Your task to perform on an android device: change text size in settings app Image 0: 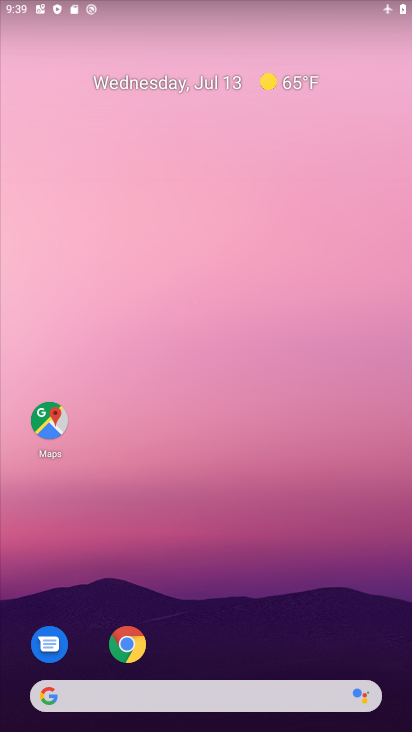
Step 0: drag from (272, 595) to (259, 15)
Your task to perform on an android device: change text size in settings app Image 1: 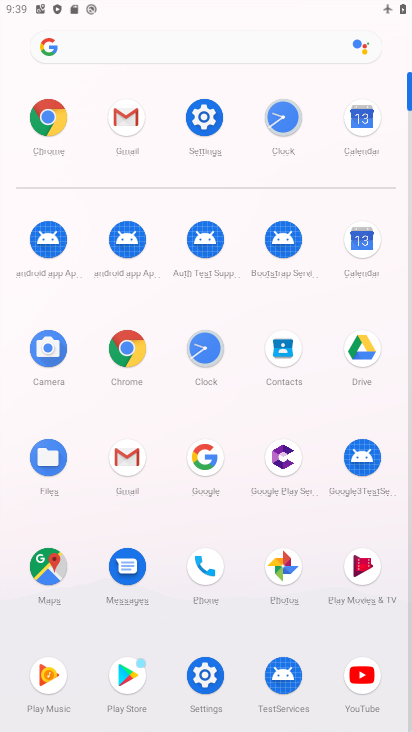
Step 1: click (212, 125)
Your task to perform on an android device: change text size in settings app Image 2: 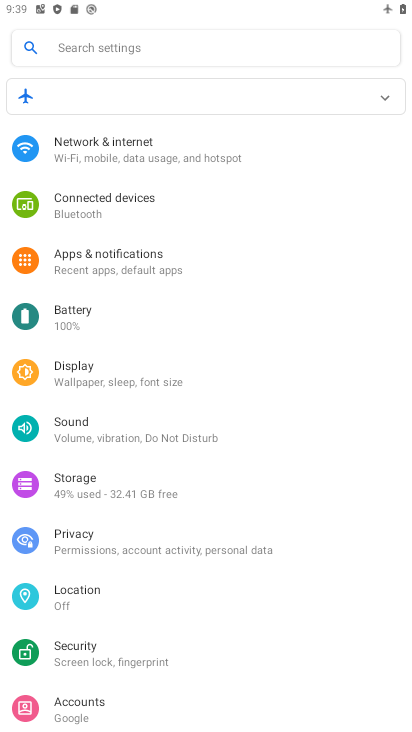
Step 2: drag from (177, 612) to (167, 337)
Your task to perform on an android device: change text size in settings app Image 3: 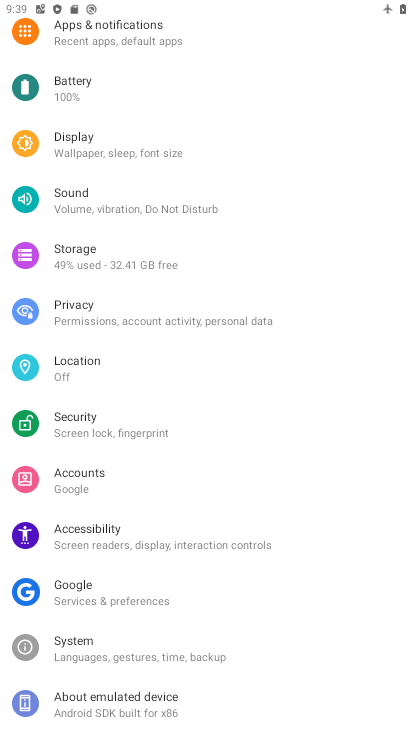
Step 3: drag from (186, 692) to (162, 320)
Your task to perform on an android device: change text size in settings app Image 4: 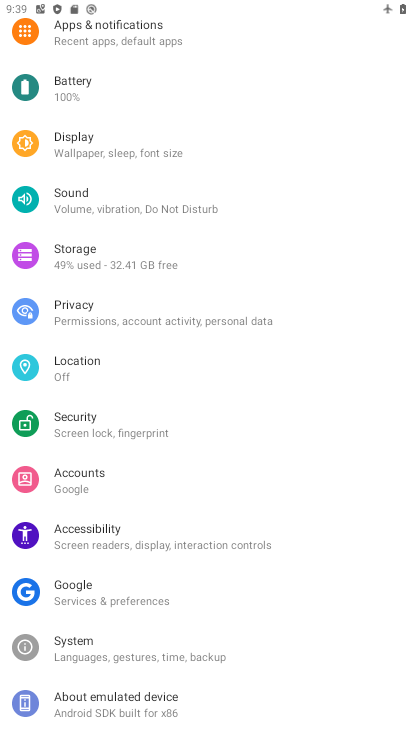
Step 4: drag from (192, 315) to (229, 452)
Your task to perform on an android device: change text size in settings app Image 5: 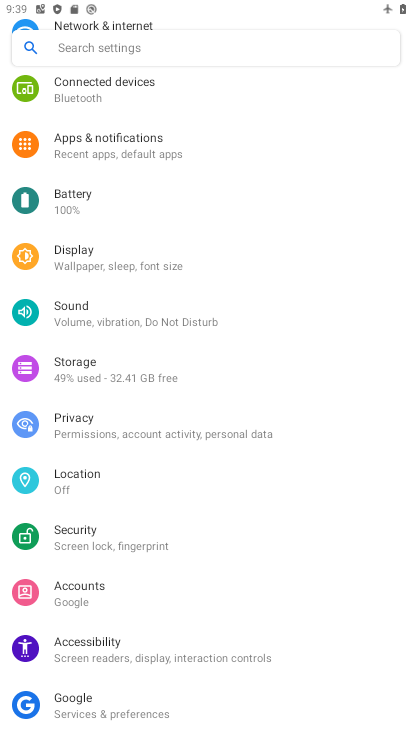
Step 5: click (107, 259)
Your task to perform on an android device: change text size in settings app Image 6: 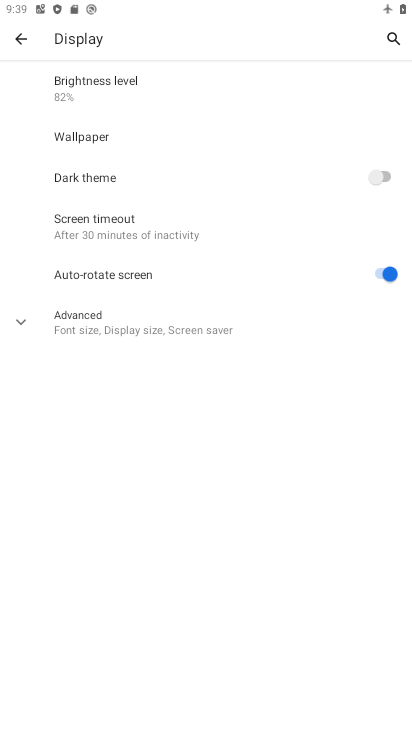
Step 6: click (112, 336)
Your task to perform on an android device: change text size in settings app Image 7: 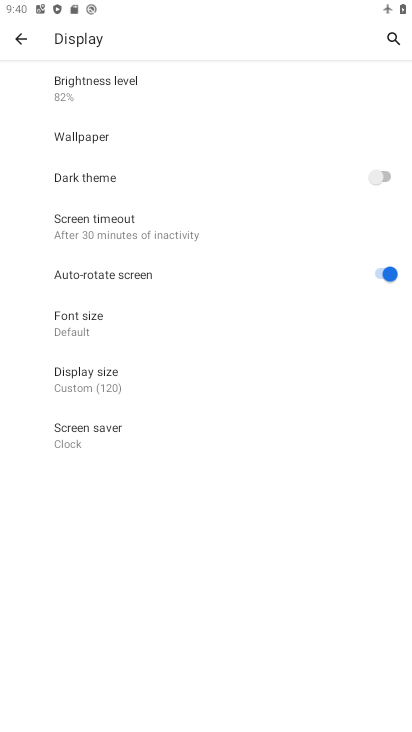
Step 7: click (69, 323)
Your task to perform on an android device: change text size in settings app Image 8: 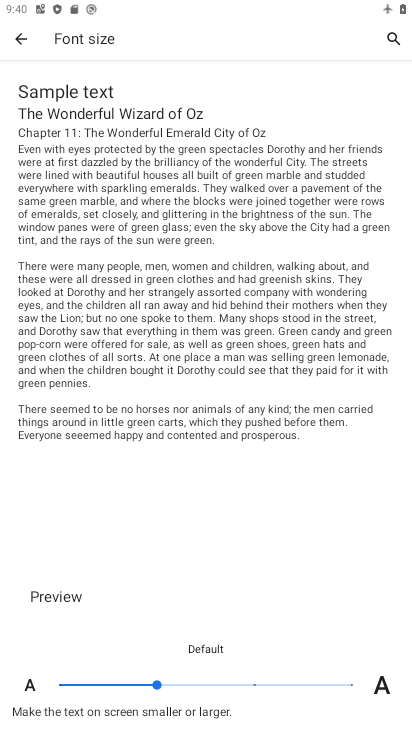
Step 8: click (177, 676)
Your task to perform on an android device: change text size in settings app Image 9: 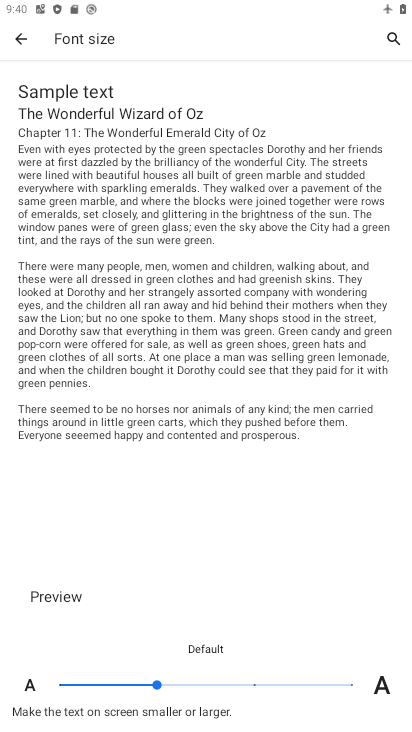
Step 9: click (268, 679)
Your task to perform on an android device: change text size in settings app Image 10: 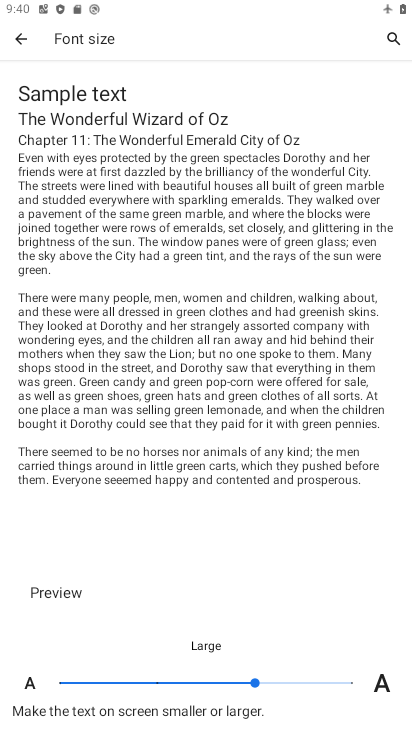
Step 10: task complete